Your task to perform on an android device: turn off picture-in-picture Image 0: 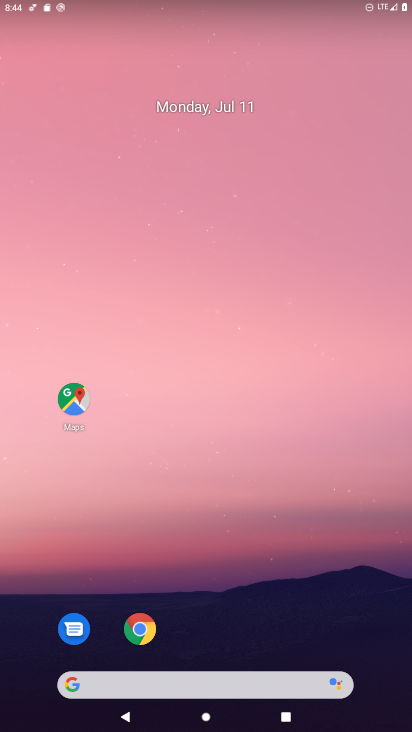
Step 0: click (141, 623)
Your task to perform on an android device: turn off picture-in-picture Image 1: 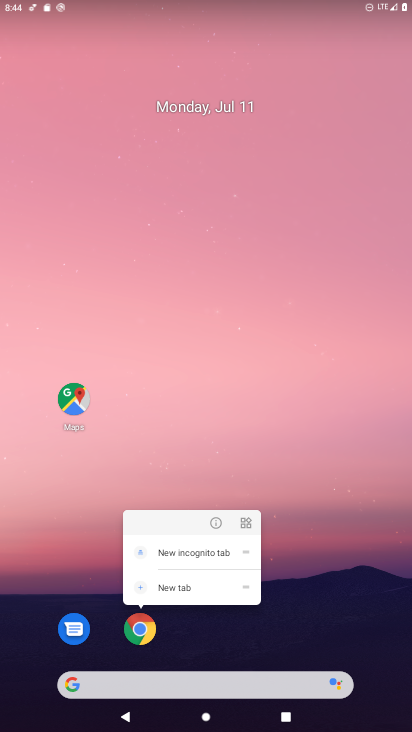
Step 1: click (212, 525)
Your task to perform on an android device: turn off picture-in-picture Image 2: 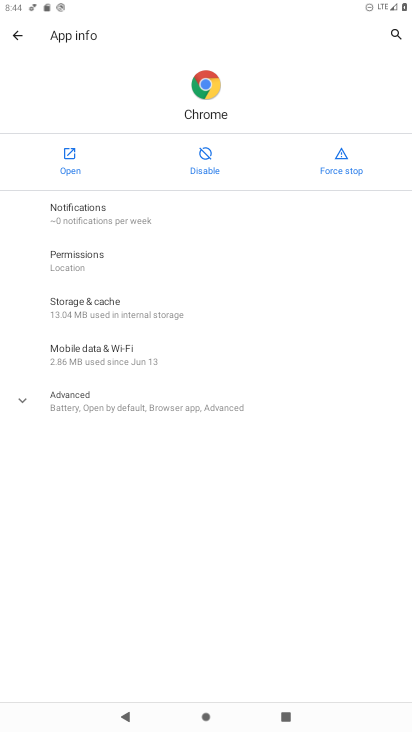
Step 2: click (119, 405)
Your task to perform on an android device: turn off picture-in-picture Image 3: 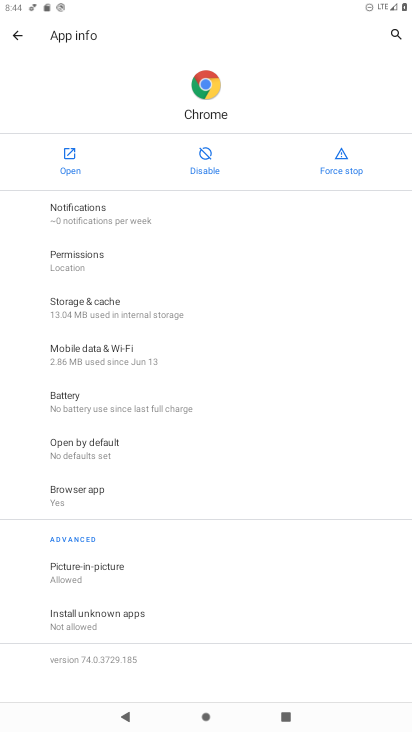
Step 3: click (130, 579)
Your task to perform on an android device: turn off picture-in-picture Image 4: 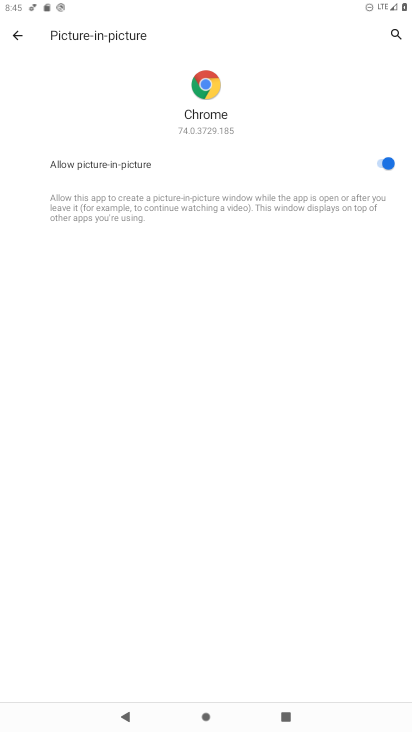
Step 4: click (379, 160)
Your task to perform on an android device: turn off picture-in-picture Image 5: 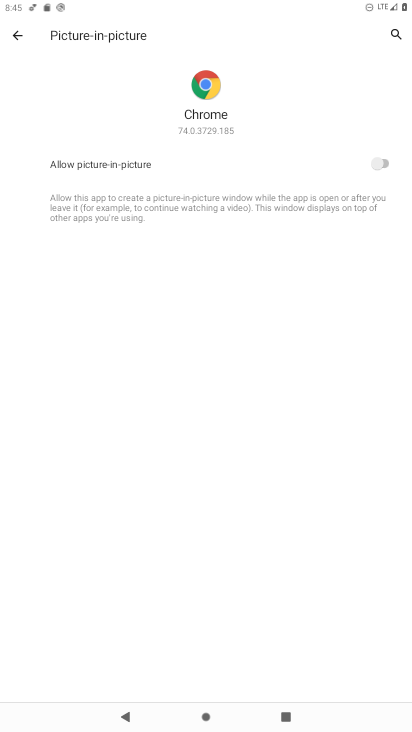
Step 5: task complete